Your task to perform on an android device: empty trash in google photos Image 0: 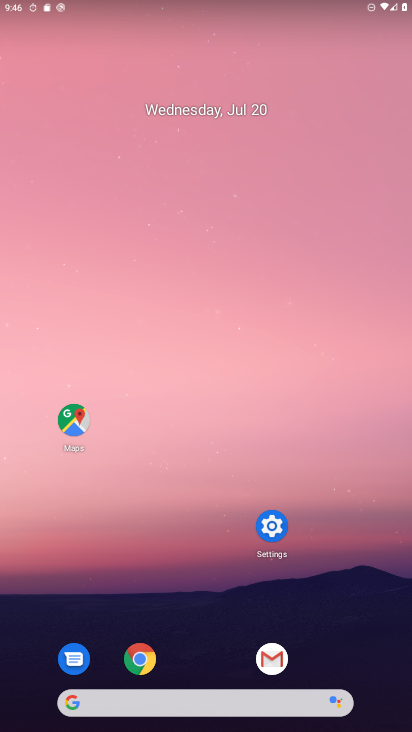
Step 0: drag from (274, 710) to (192, 176)
Your task to perform on an android device: empty trash in google photos Image 1: 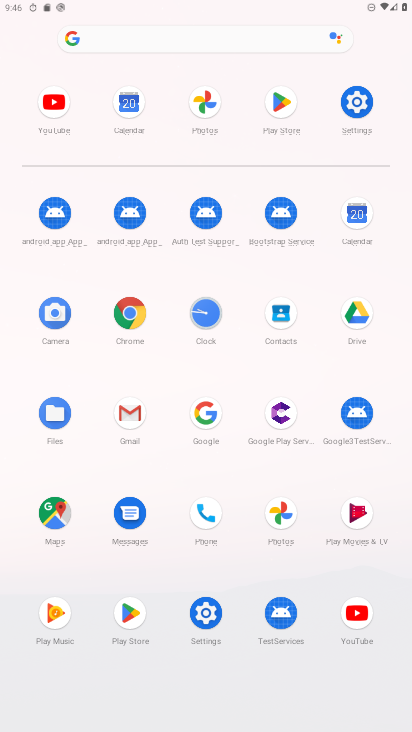
Step 1: click (278, 516)
Your task to perform on an android device: empty trash in google photos Image 2: 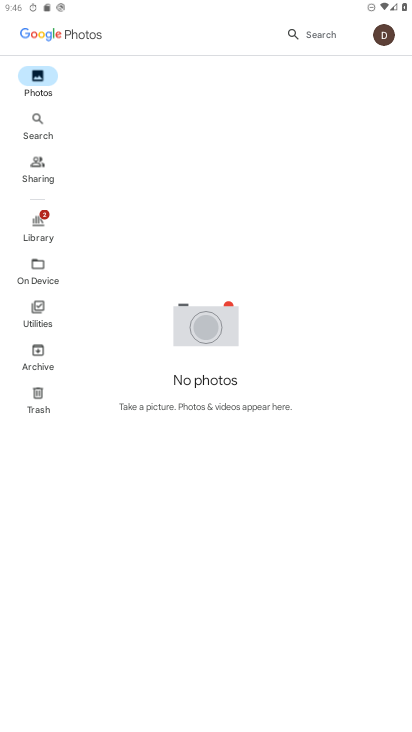
Step 2: click (290, 35)
Your task to perform on an android device: empty trash in google photos Image 3: 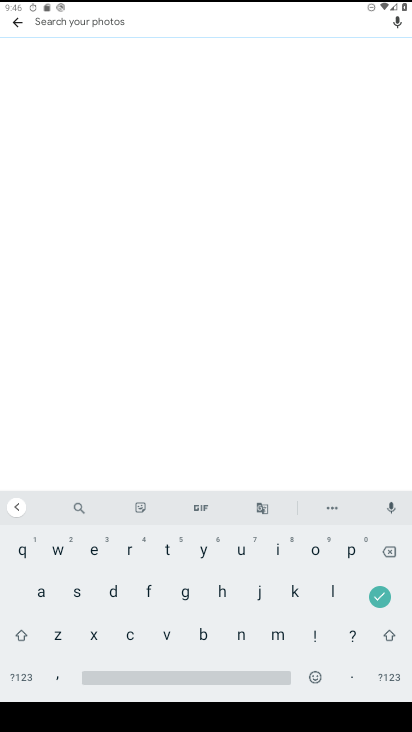
Step 3: click (166, 550)
Your task to perform on an android device: empty trash in google photos Image 4: 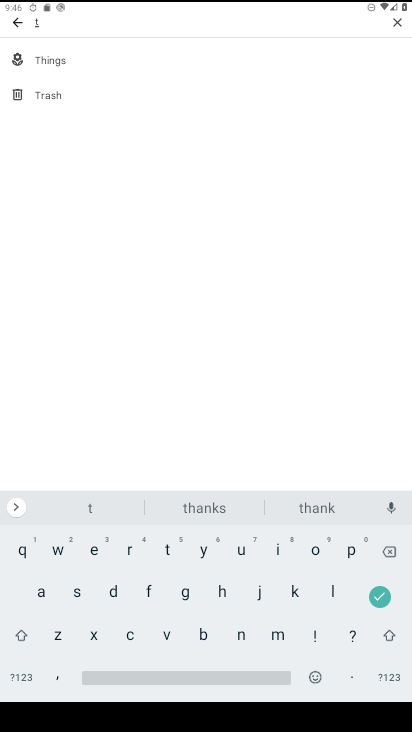
Step 4: click (60, 96)
Your task to perform on an android device: empty trash in google photos Image 5: 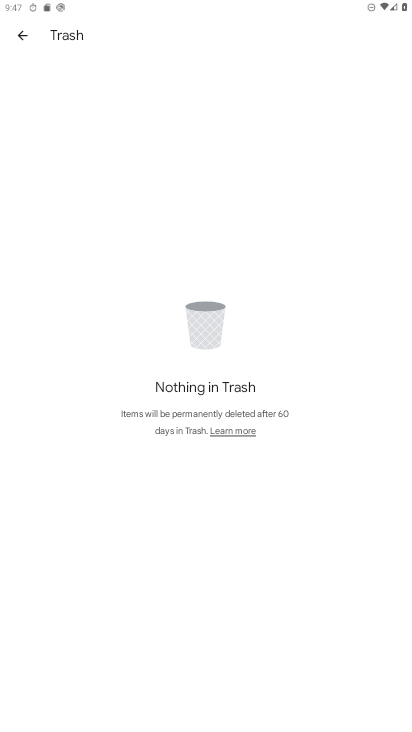
Step 5: task complete